Your task to perform on an android device: Toggle the flashlight Image 0: 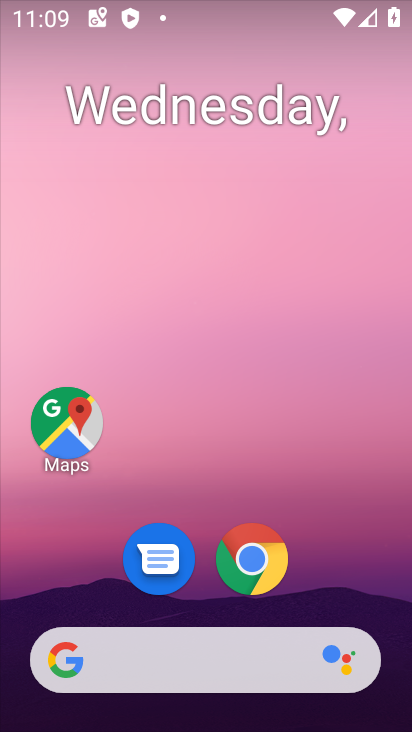
Step 0: drag from (199, 565) to (214, 33)
Your task to perform on an android device: Toggle the flashlight Image 1: 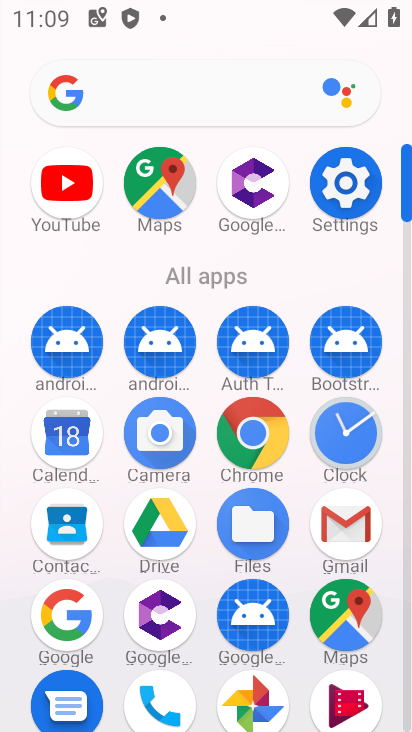
Step 1: click (358, 172)
Your task to perform on an android device: Toggle the flashlight Image 2: 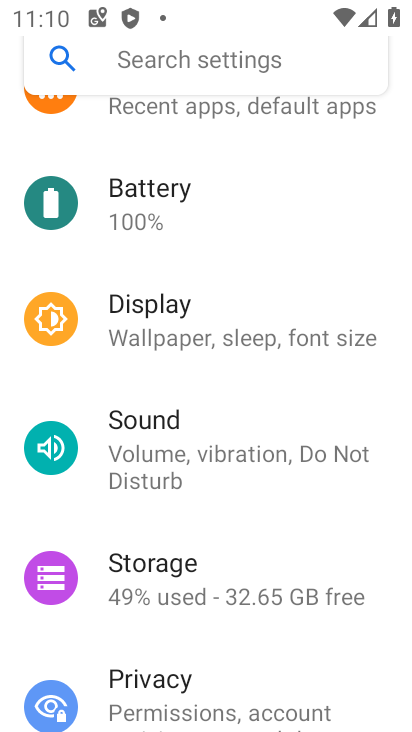
Step 2: drag from (226, 179) to (172, 692)
Your task to perform on an android device: Toggle the flashlight Image 3: 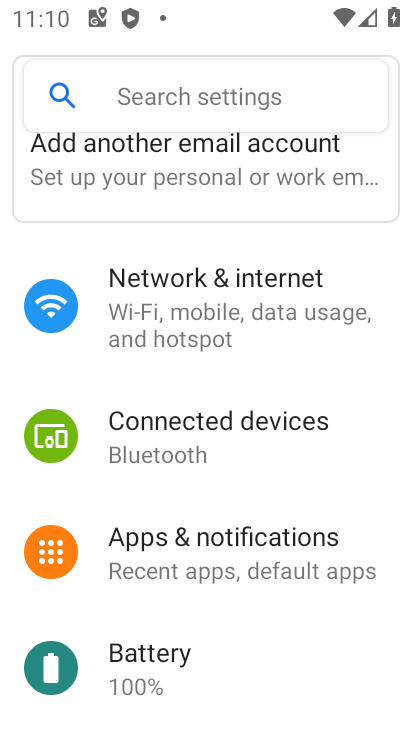
Step 3: click (161, 109)
Your task to perform on an android device: Toggle the flashlight Image 4: 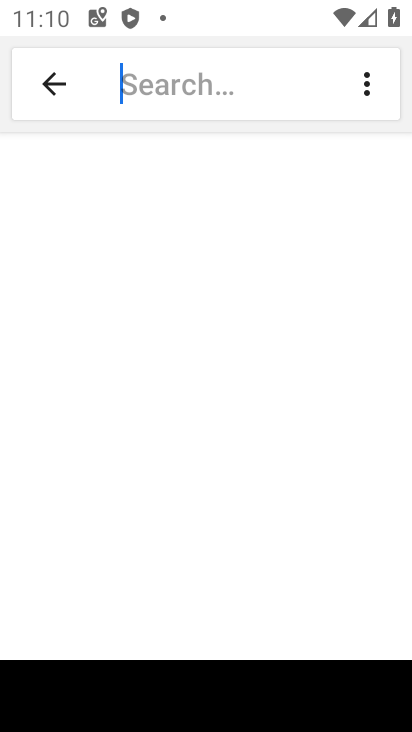
Step 4: type "flashlight"
Your task to perform on an android device: Toggle the flashlight Image 5: 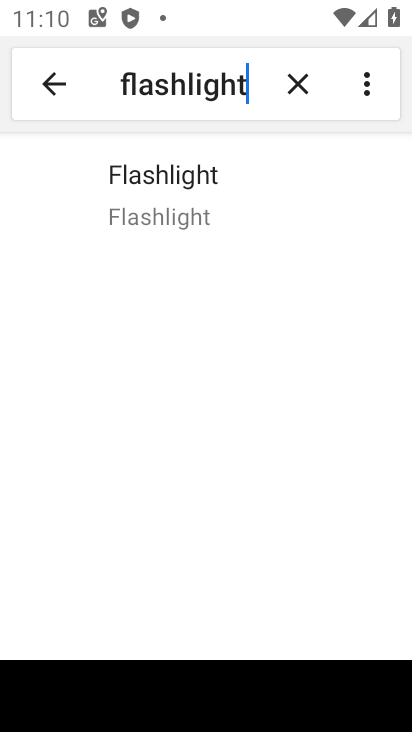
Step 5: click (163, 174)
Your task to perform on an android device: Toggle the flashlight Image 6: 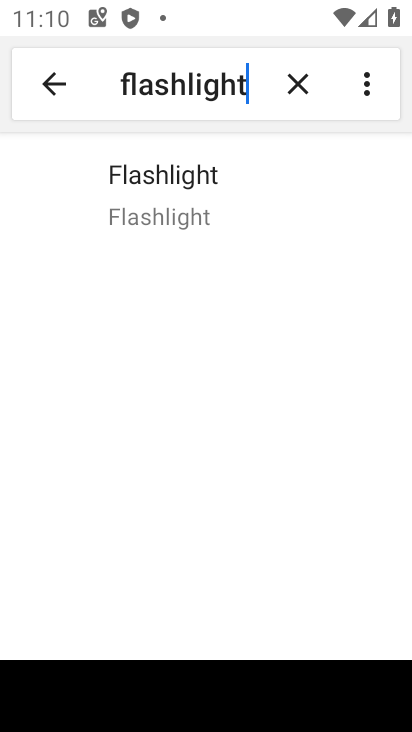
Step 6: click (188, 188)
Your task to perform on an android device: Toggle the flashlight Image 7: 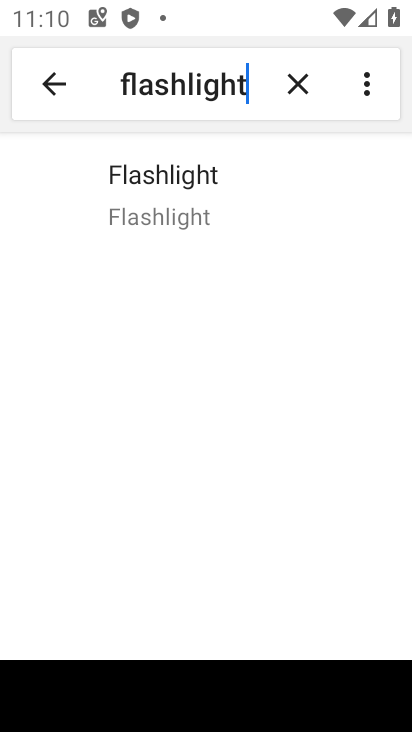
Step 7: click (171, 213)
Your task to perform on an android device: Toggle the flashlight Image 8: 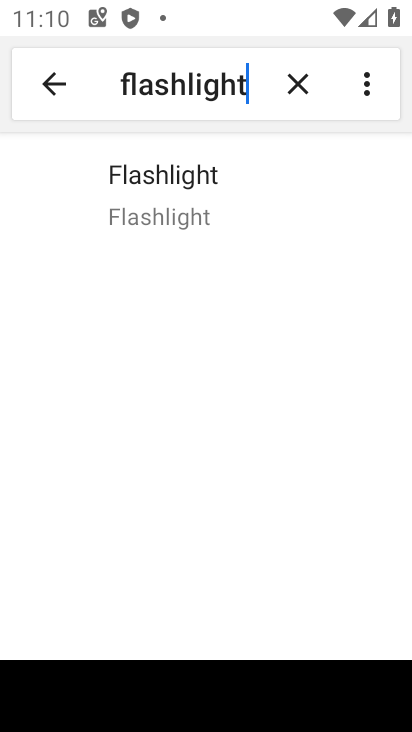
Step 8: click (155, 198)
Your task to perform on an android device: Toggle the flashlight Image 9: 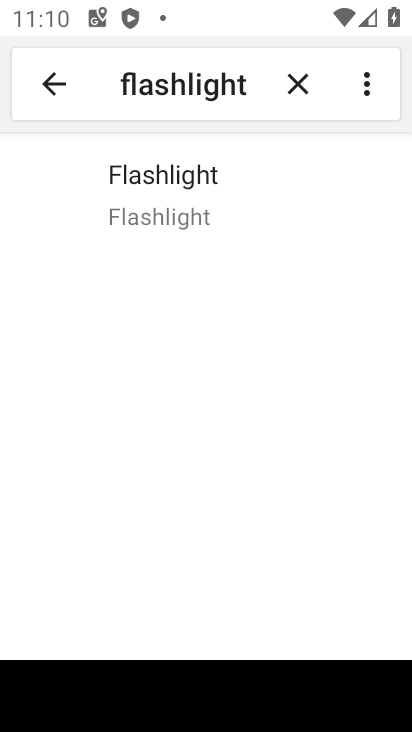
Step 9: task complete